Your task to perform on an android device: turn off priority inbox in the gmail app Image 0: 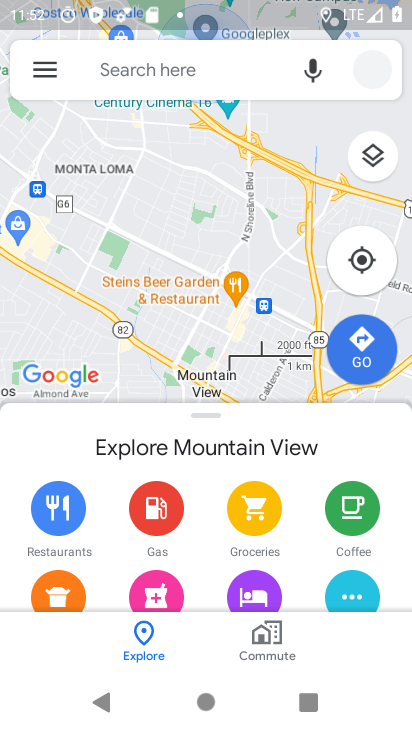
Step 0: press home button
Your task to perform on an android device: turn off priority inbox in the gmail app Image 1: 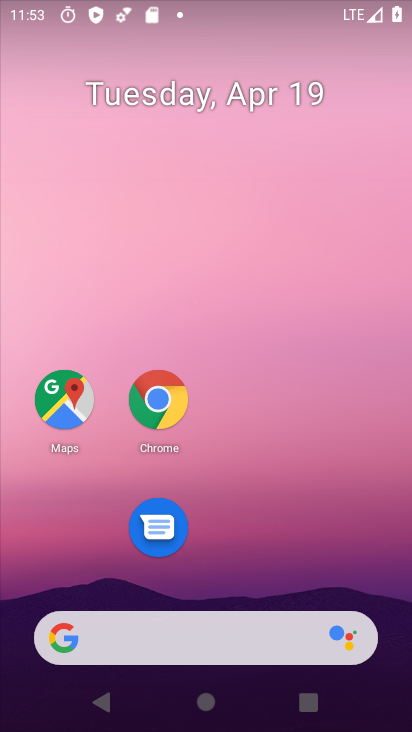
Step 1: drag from (262, 660) to (363, 239)
Your task to perform on an android device: turn off priority inbox in the gmail app Image 2: 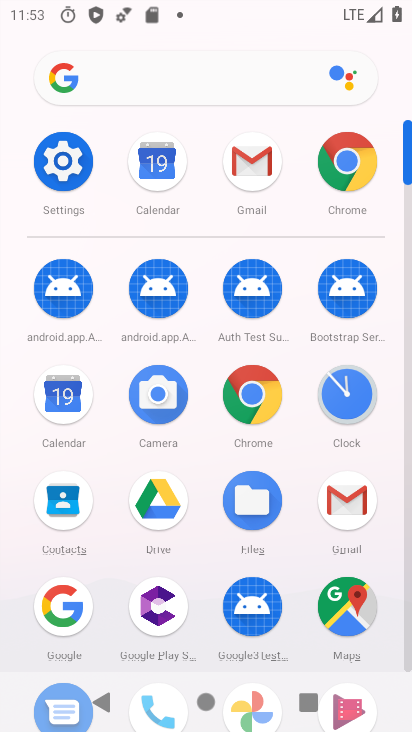
Step 2: click (341, 490)
Your task to perform on an android device: turn off priority inbox in the gmail app Image 3: 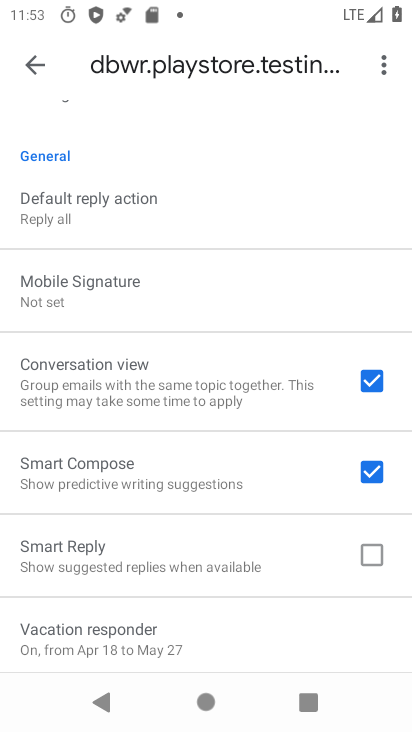
Step 3: drag from (172, 233) to (150, 501)
Your task to perform on an android device: turn off priority inbox in the gmail app Image 4: 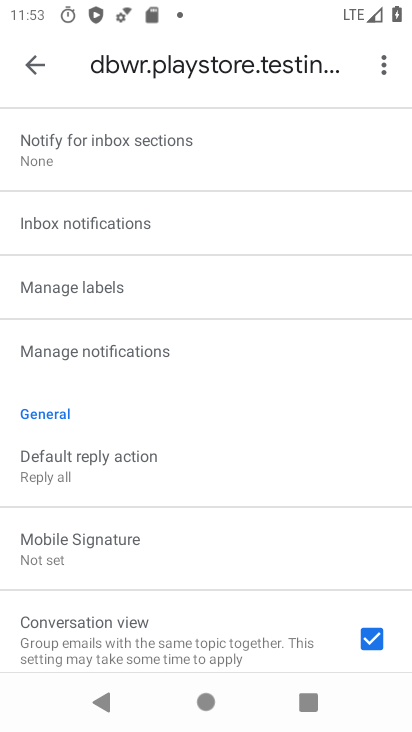
Step 4: drag from (111, 157) to (48, 410)
Your task to perform on an android device: turn off priority inbox in the gmail app Image 5: 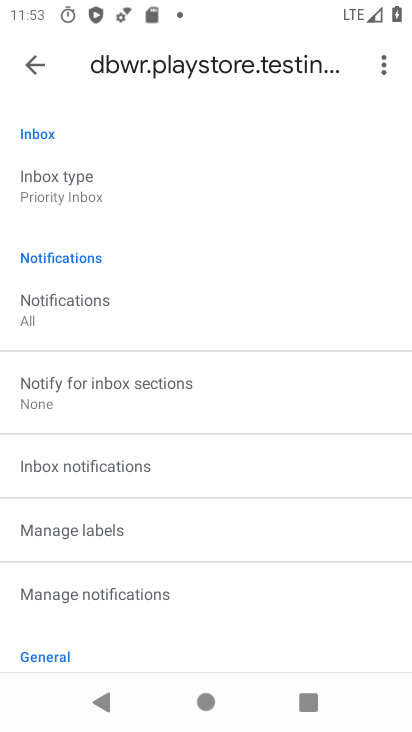
Step 5: click (103, 179)
Your task to perform on an android device: turn off priority inbox in the gmail app Image 6: 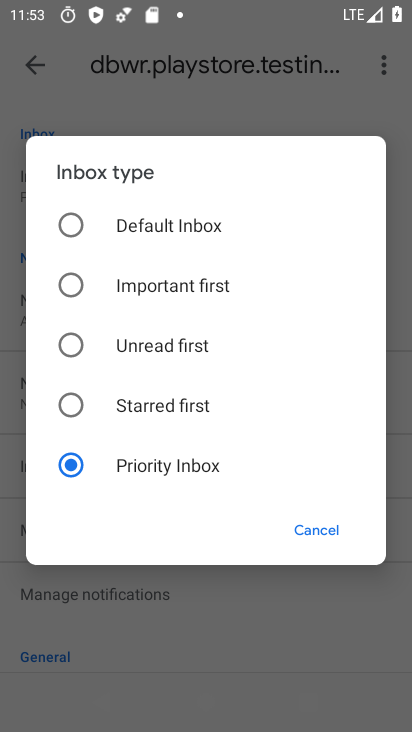
Step 6: click (92, 226)
Your task to perform on an android device: turn off priority inbox in the gmail app Image 7: 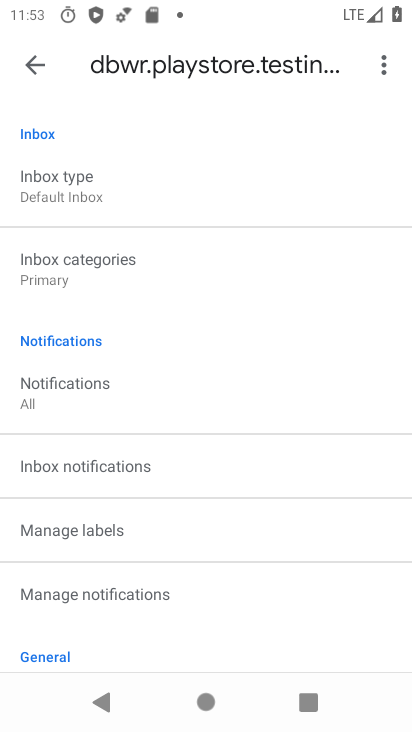
Step 7: task complete